Your task to perform on an android device: Open battery settings Image 0: 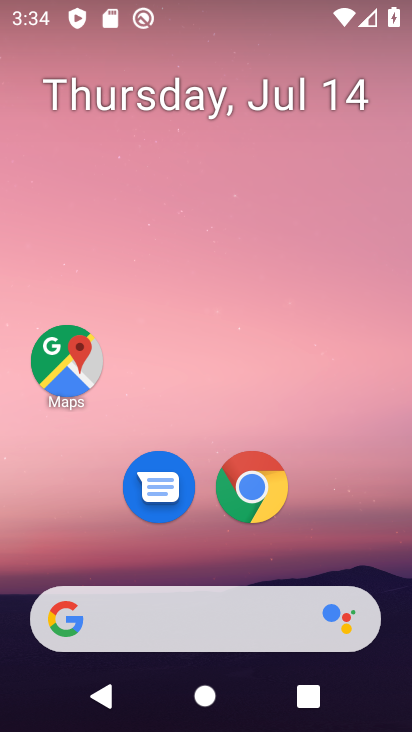
Step 0: drag from (133, 584) to (198, 172)
Your task to perform on an android device: Open battery settings Image 1: 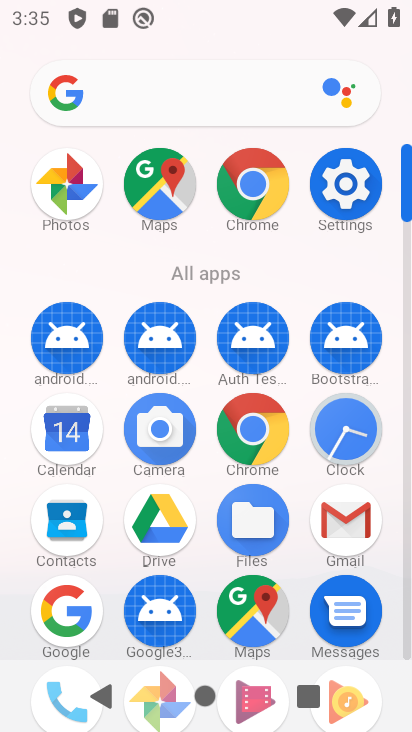
Step 1: click (361, 207)
Your task to perform on an android device: Open battery settings Image 2: 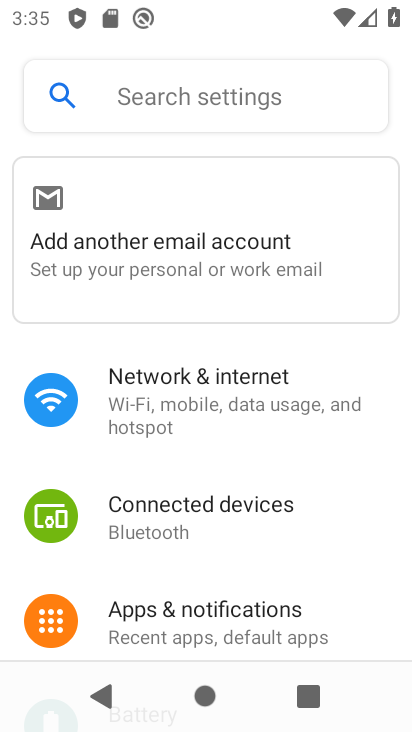
Step 2: drag from (240, 558) to (264, 319)
Your task to perform on an android device: Open battery settings Image 3: 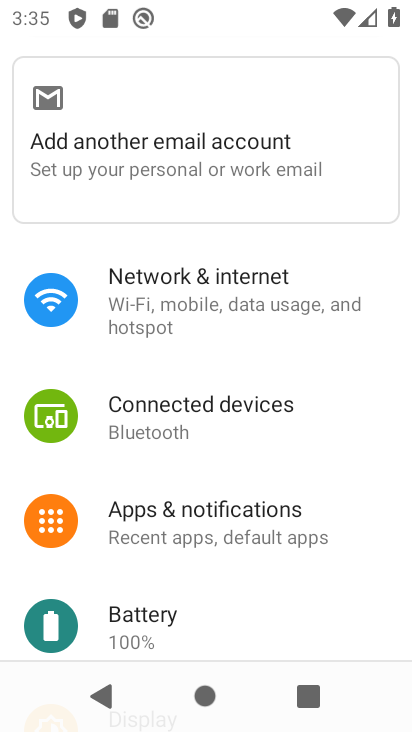
Step 3: drag from (225, 534) to (283, 254)
Your task to perform on an android device: Open battery settings Image 4: 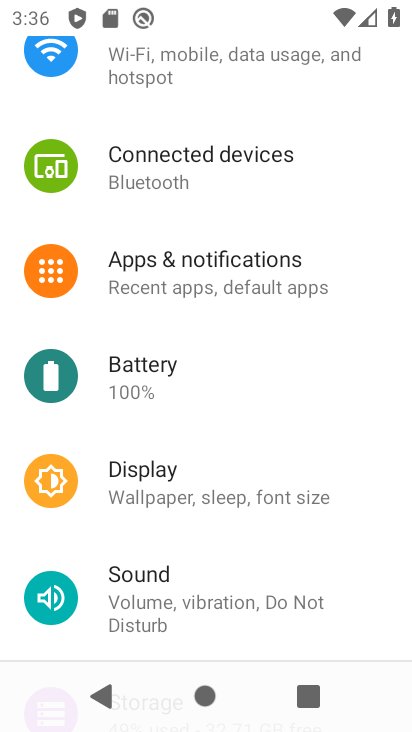
Step 4: click (209, 382)
Your task to perform on an android device: Open battery settings Image 5: 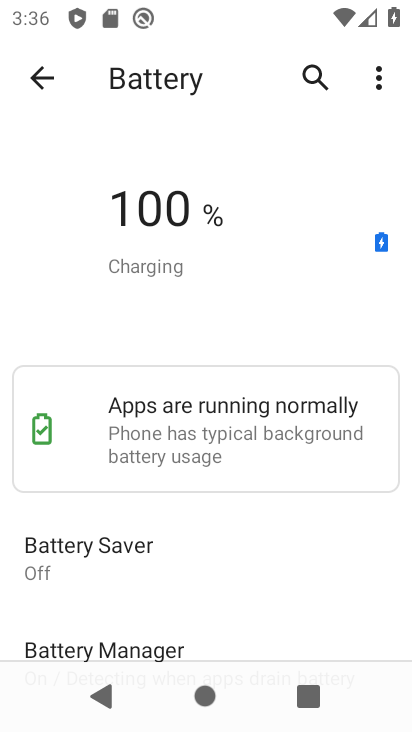
Step 5: task complete